Your task to perform on an android device: open a bookmark in the chrome app Image 0: 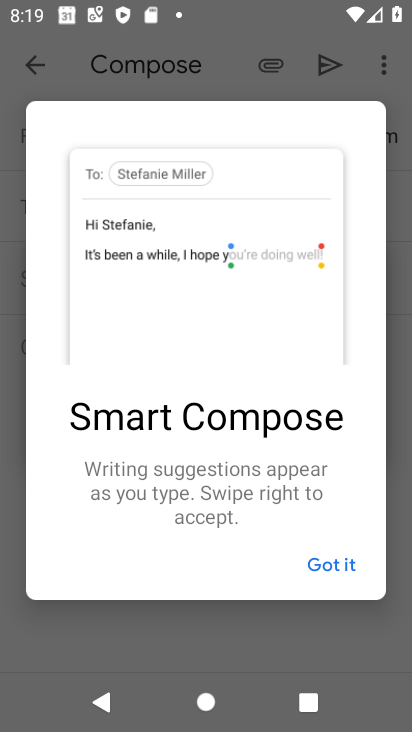
Step 0: press home button
Your task to perform on an android device: open a bookmark in the chrome app Image 1: 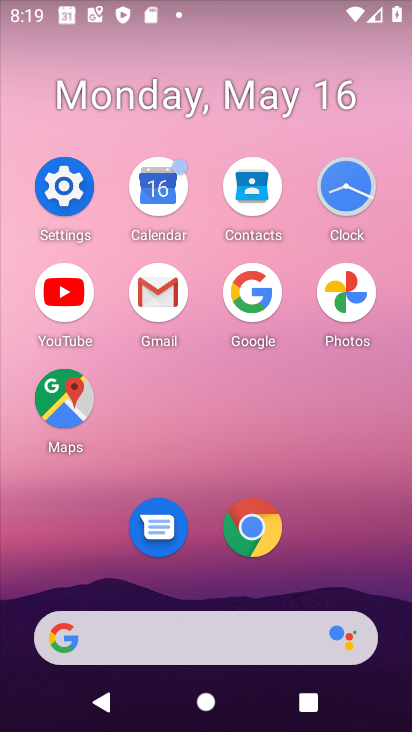
Step 1: click (254, 546)
Your task to perform on an android device: open a bookmark in the chrome app Image 2: 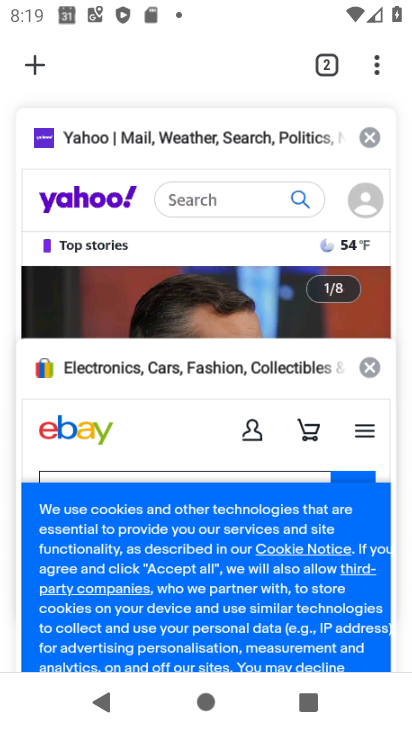
Step 2: click (372, 66)
Your task to perform on an android device: open a bookmark in the chrome app Image 3: 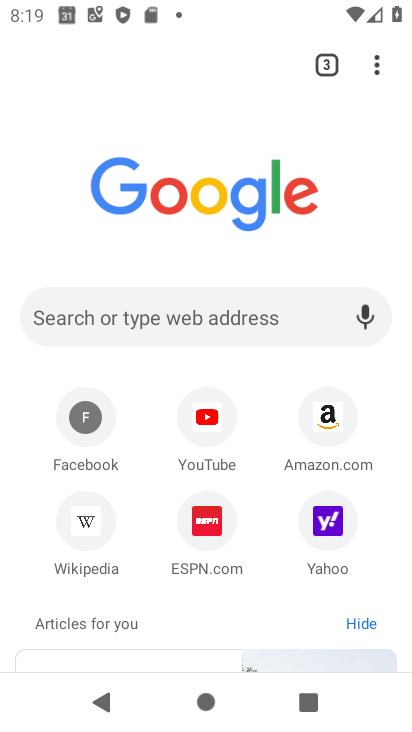
Step 3: click (382, 65)
Your task to perform on an android device: open a bookmark in the chrome app Image 4: 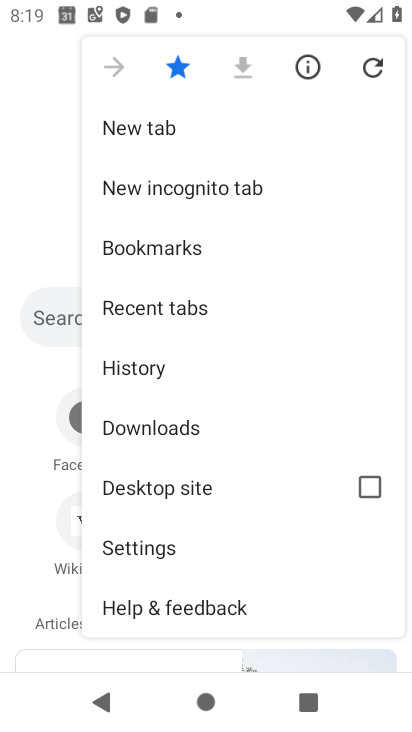
Step 4: click (217, 244)
Your task to perform on an android device: open a bookmark in the chrome app Image 5: 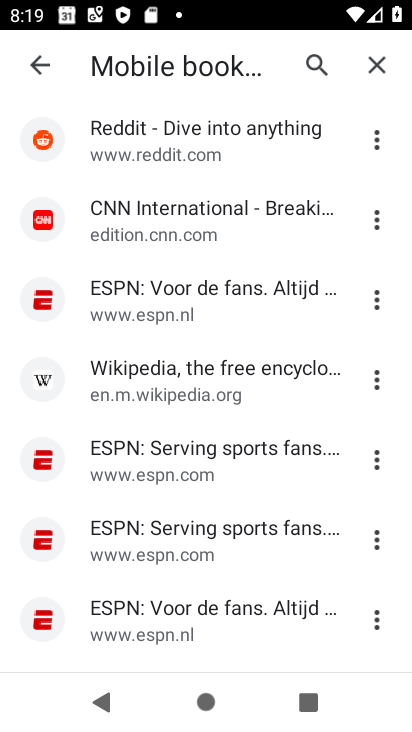
Step 5: task complete